Your task to perform on an android device: Do I have any events today? Image 0: 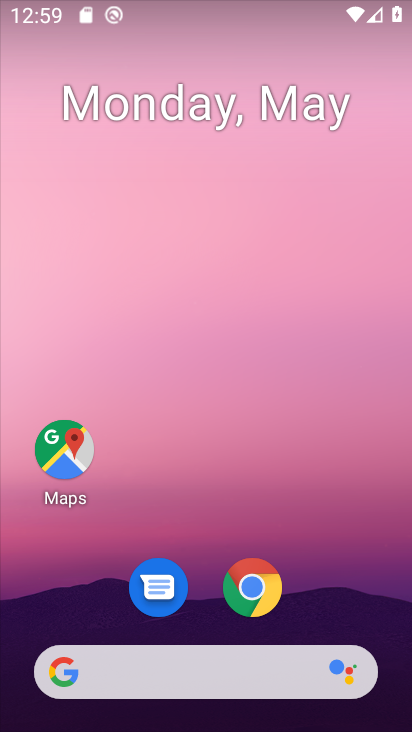
Step 0: drag from (212, 625) to (215, 173)
Your task to perform on an android device: Do I have any events today? Image 1: 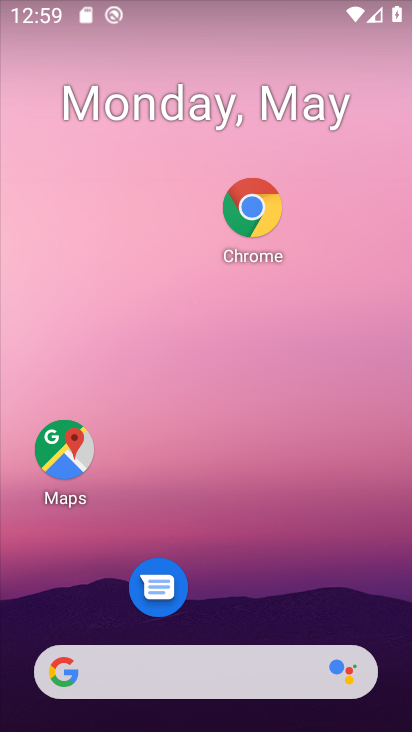
Step 1: drag from (204, 549) to (388, 19)
Your task to perform on an android device: Do I have any events today? Image 2: 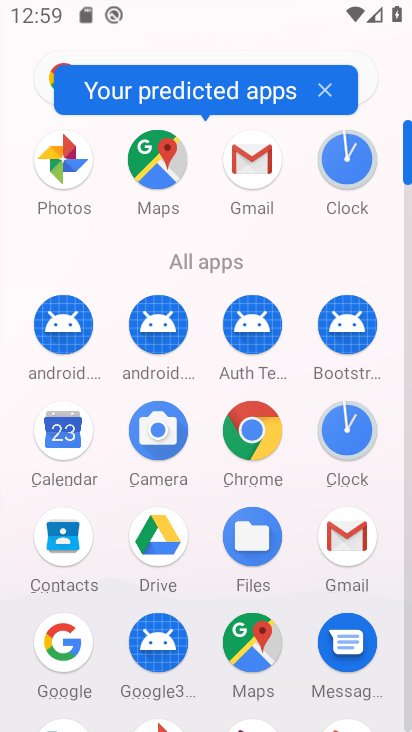
Step 2: click (62, 441)
Your task to perform on an android device: Do I have any events today? Image 3: 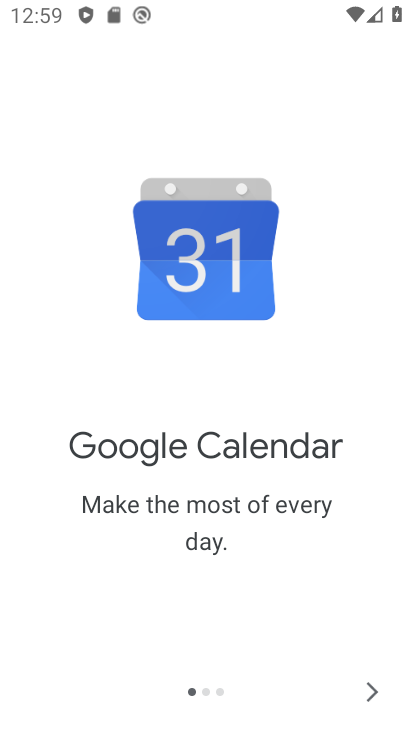
Step 3: click (376, 679)
Your task to perform on an android device: Do I have any events today? Image 4: 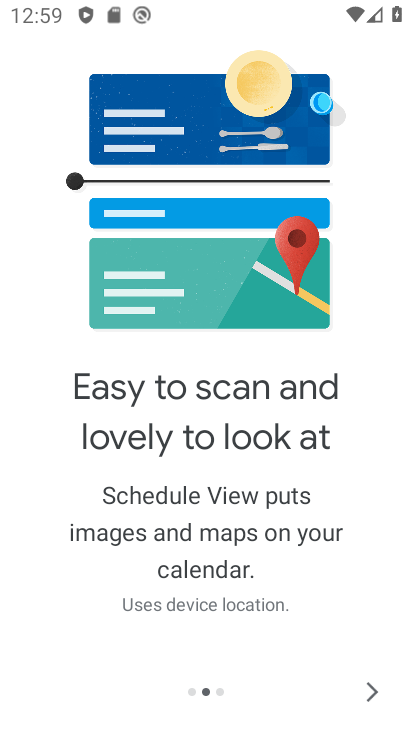
Step 4: click (376, 679)
Your task to perform on an android device: Do I have any events today? Image 5: 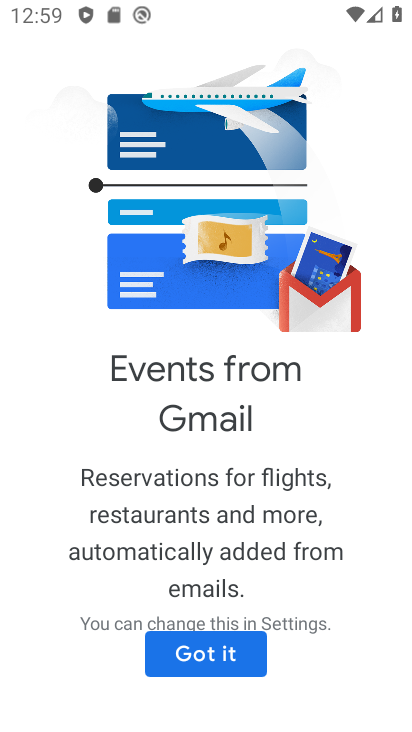
Step 5: click (243, 649)
Your task to perform on an android device: Do I have any events today? Image 6: 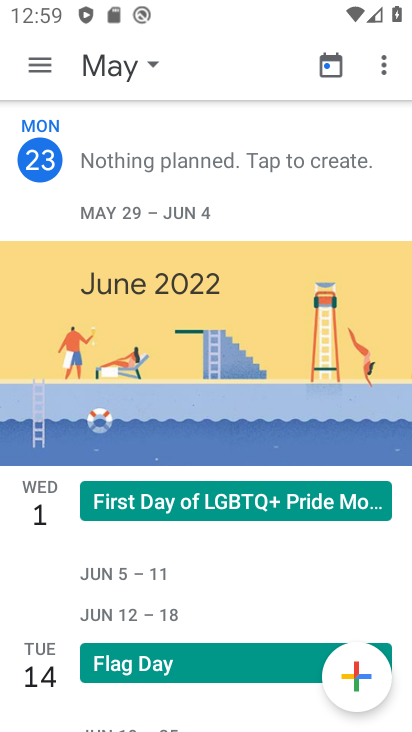
Step 6: click (41, 158)
Your task to perform on an android device: Do I have any events today? Image 7: 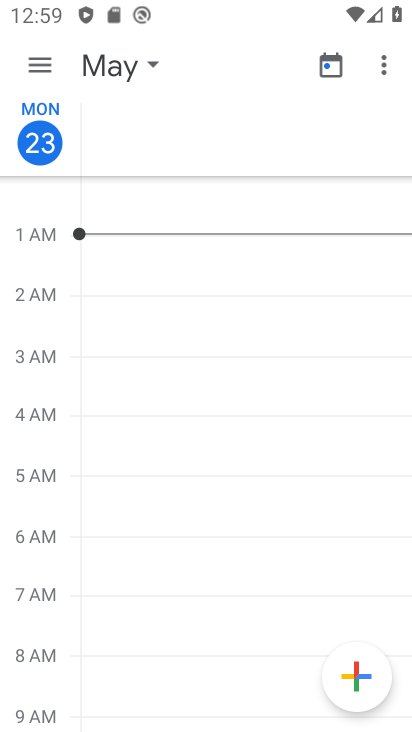
Step 7: task complete